Your task to perform on an android device: delete the emails in spam in the gmail app Image 0: 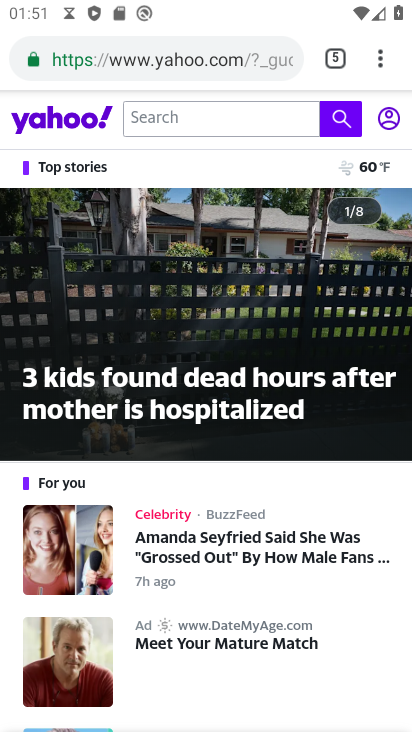
Step 0: press home button
Your task to perform on an android device: delete the emails in spam in the gmail app Image 1: 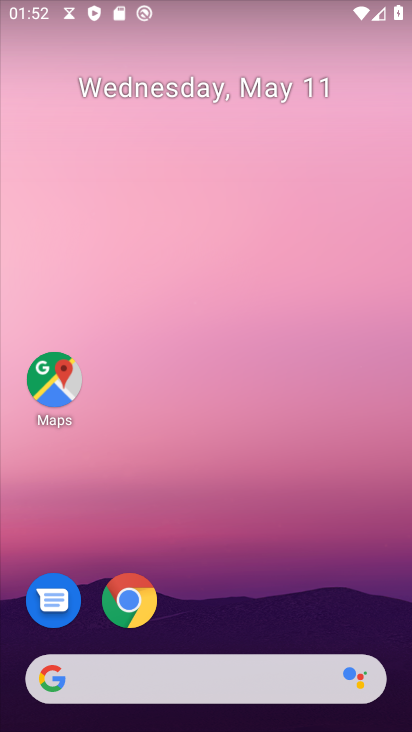
Step 1: drag from (208, 585) to (211, 204)
Your task to perform on an android device: delete the emails in spam in the gmail app Image 2: 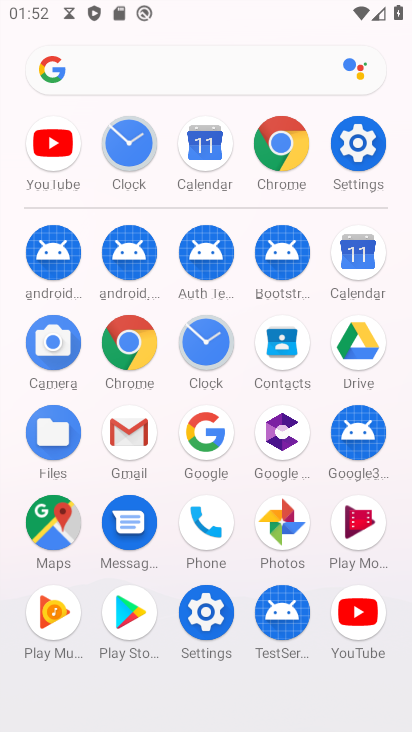
Step 2: click (121, 424)
Your task to perform on an android device: delete the emails in spam in the gmail app Image 3: 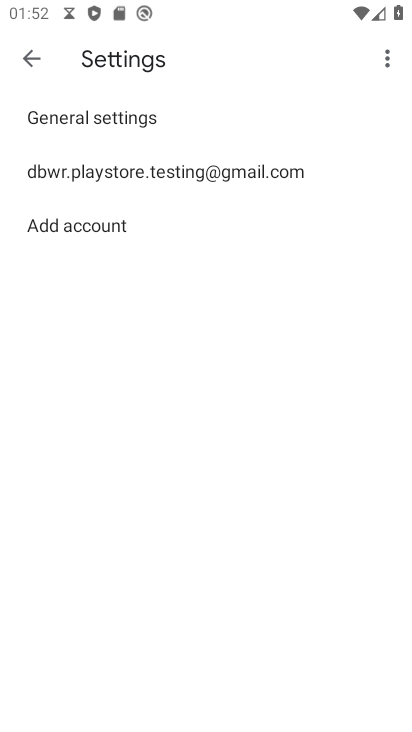
Step 3: click (90, 166)
Your task to perform on an android device: delete the emails in spam in the gmail app Image 4: 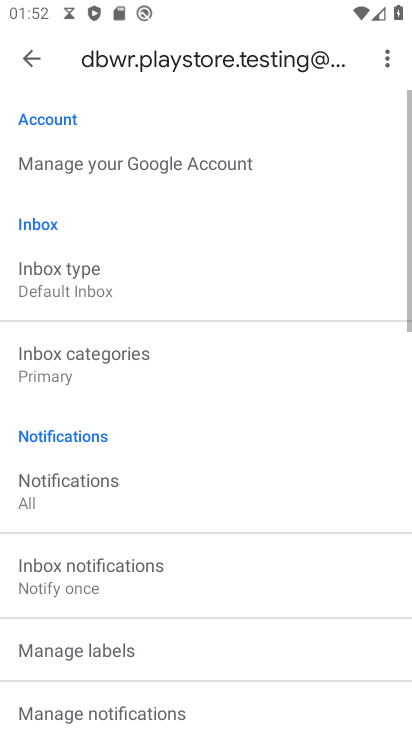
Step 4: click (18, 54)
Your task to perform on an android device: delete the emails in spam in the gmail app Image 5: 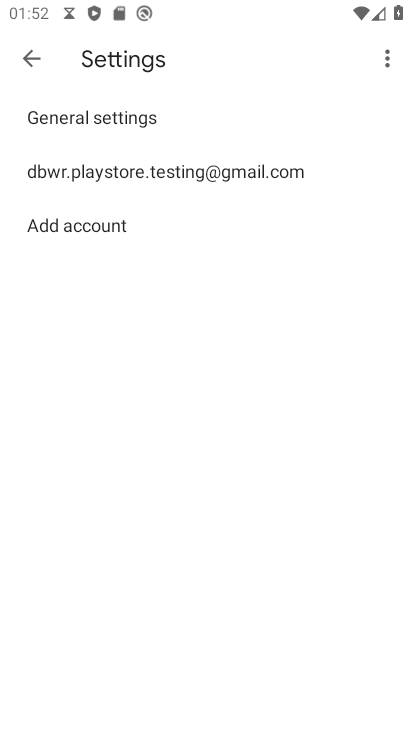
Step 5: click (18, 54)
Your task to perform on an android device: delete the emails in spam in the gmail app Image 6: 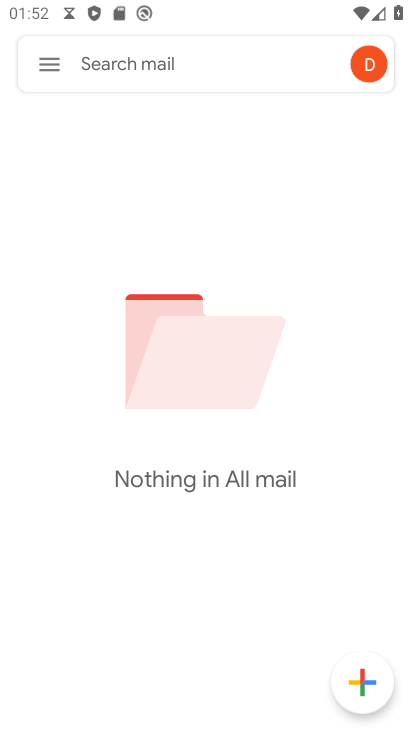
Step 6: click (32, 60)
Your task to perform on an android device: delete the emails in spam in the gmail app Image 7: 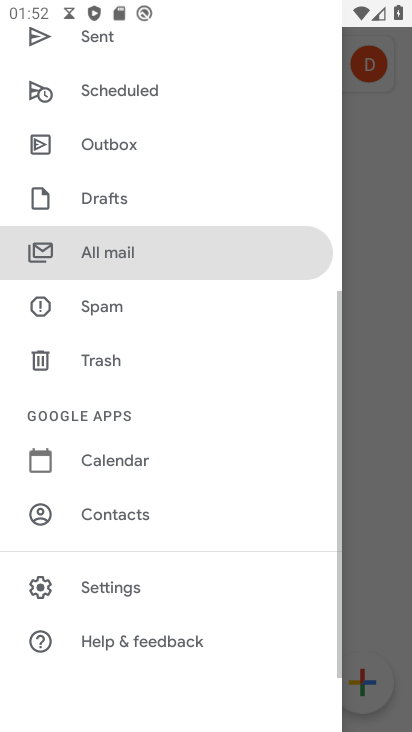
Step 7: click (109, 306)
Your task to perform on an android device: delete the emails in spam in the gmail app Image 8: 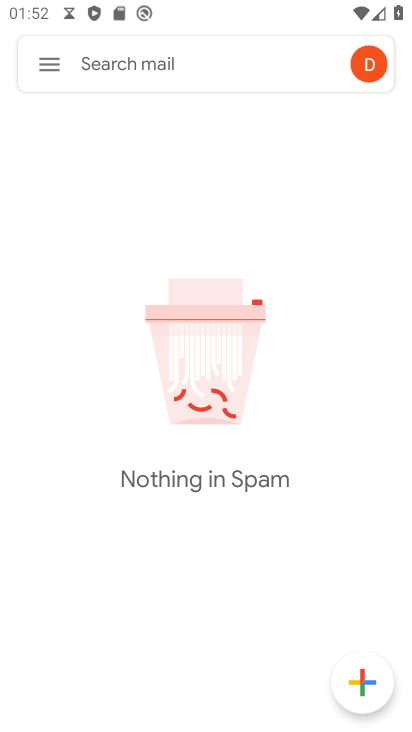
Step 8: click (46, 57)
Your task to perform on an android device: delete the emails in spam in the gmail app Image 9: 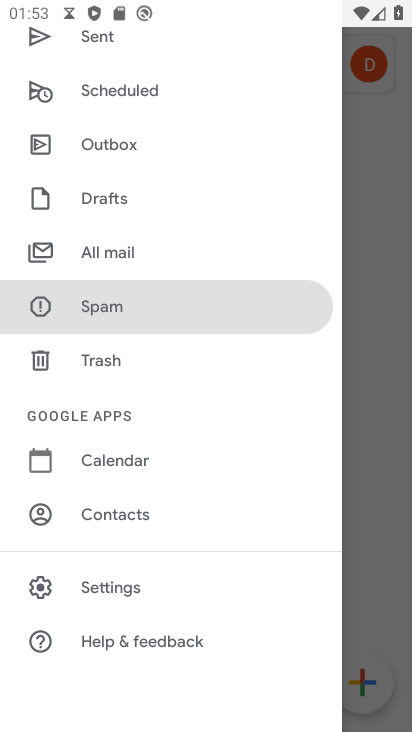
Step 9: click (384, 283)
Your task to perform on an android device: delete the emails in spam in the gmail app Image 10: 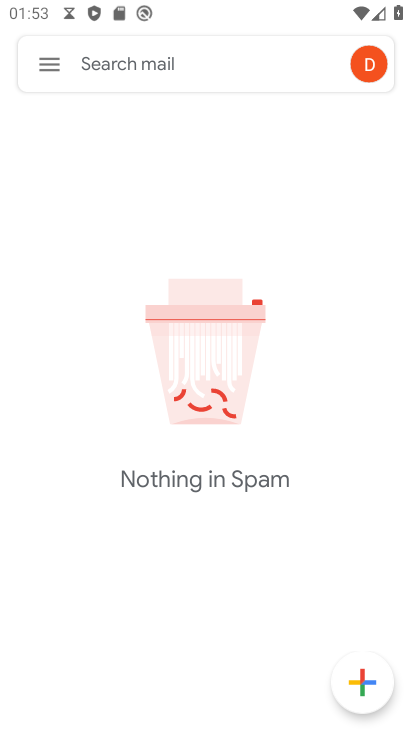
Step 10: task complete